Your task to perform on an android device: Go to location settings Image 0: 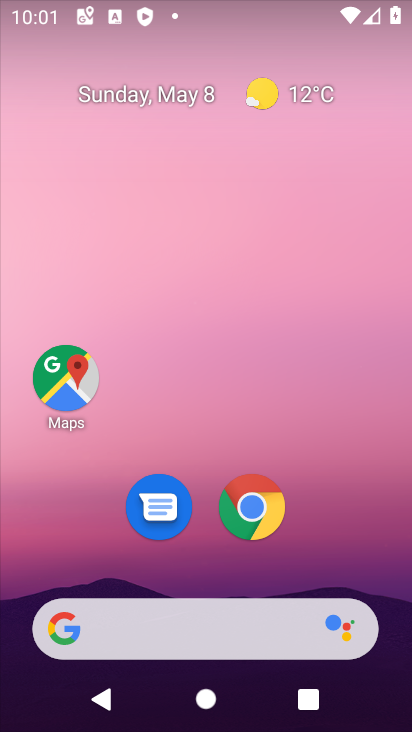
Step 0: drag from (259, 702) to (261, 78)
Your task to perform on an android device: Go to location settings Image 1: 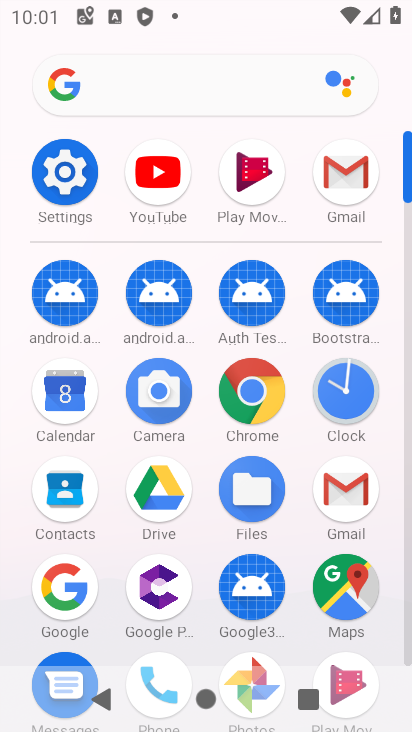
Step 1: click (62, 193)
Your task to perform on an android device: Go to location settings Image 2: 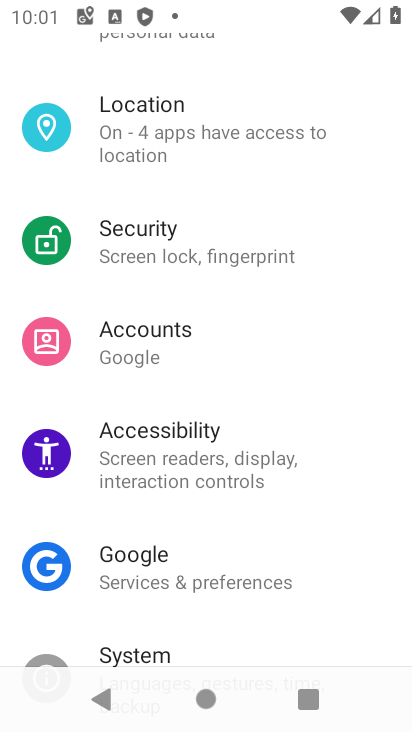
Step 2: click (224, 137)
Your task to perform on an android device: Go to location settings Image 3: 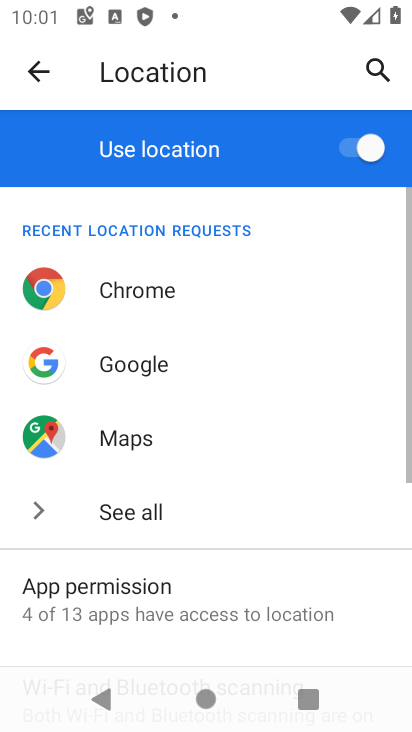
Step 3: task complete